Your task to perform on an android device: Search for Italian restaurants on Maps Image 0: 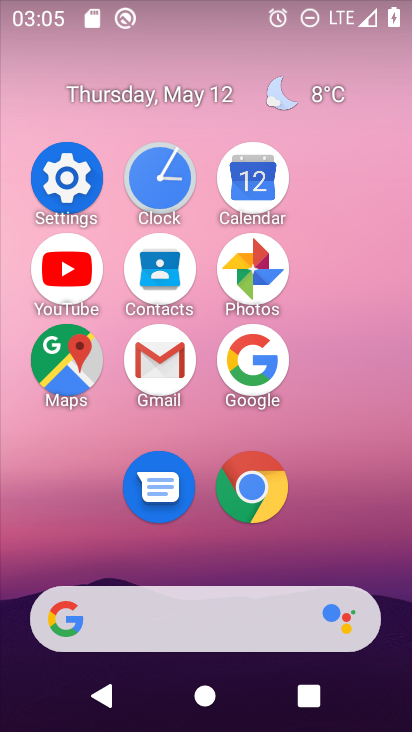
Step 0: click (73, 357)
Your task to perform on an android device: Search for Italian restaurants on Maps Image 1: 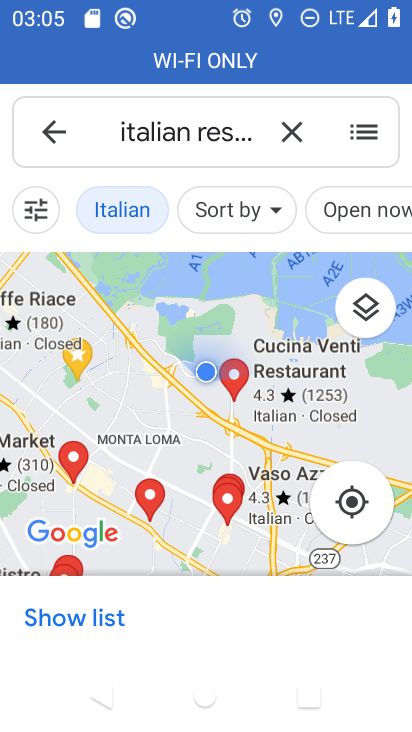
Step 1: click (290, 119)
Your task to perform on an android device: Search for Italian restaurants on Maps Image 2: 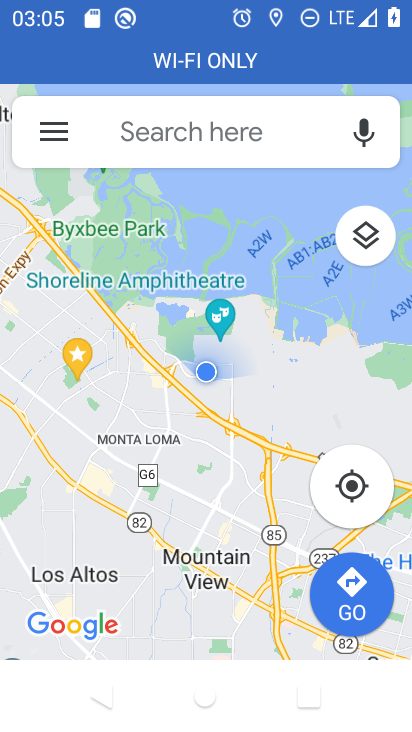
Step 2: click (204, 135)
Your task to perform on an android device: Search for Italian restaurants on Maps Image 3: 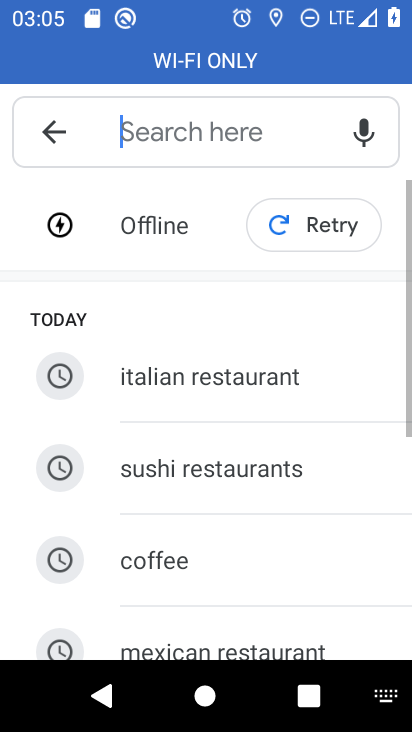
Step 3: click (240, 388)
Your task to perform on an android device: Search for Italian restaurants on Maps Image 4: 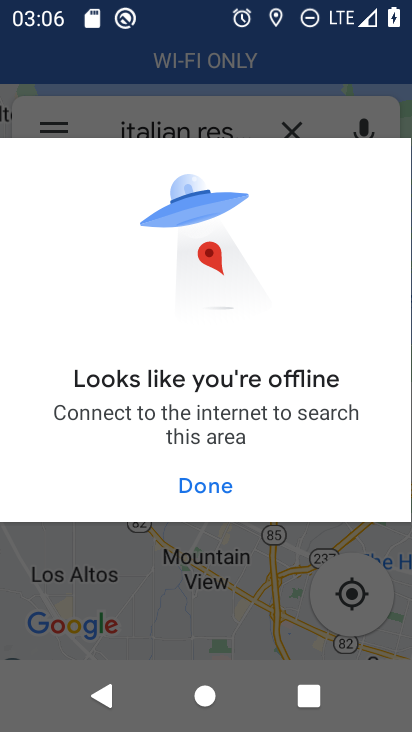
Step 4: click (214, 479)
Your task to perform on an android device: Search for Italian restaurants on Maps Image 5: 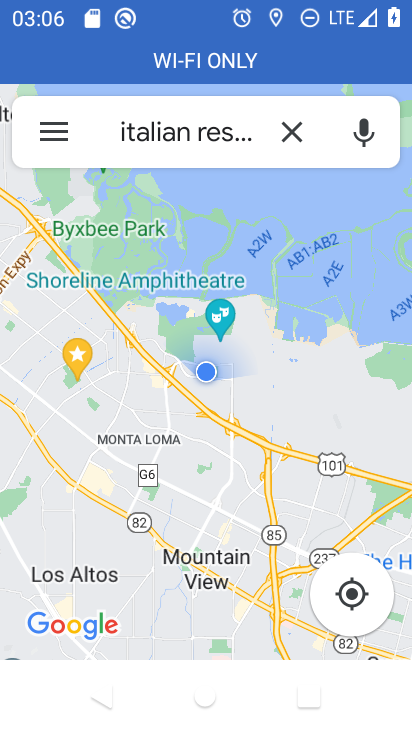
Step 5: task complete